Your task to perform on an android device: check the backup settings in the google photos Image 0: 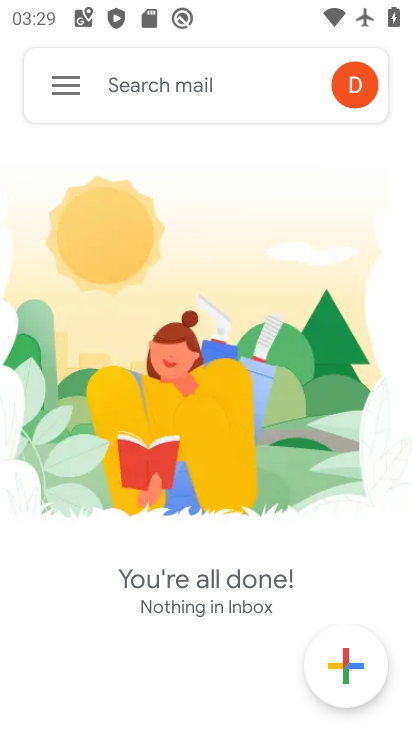
Step 0: press home button
Your task to perform on an android device: check the backup settings in the google photos Image 1: 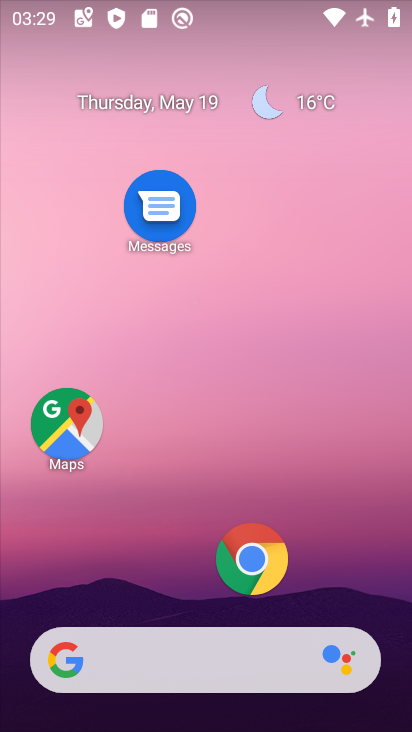
Step 1: drag from (193, 585) to (252, 274)
Your task to perform on an android device: check the backup settings in the google photos Image 2: 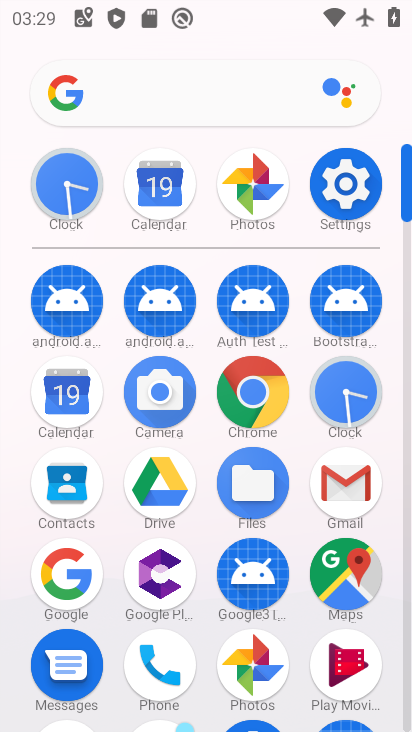
Step 2: click (257, 188)
Your task to perform on an android device: check the backup settings in the google photos Image 3: 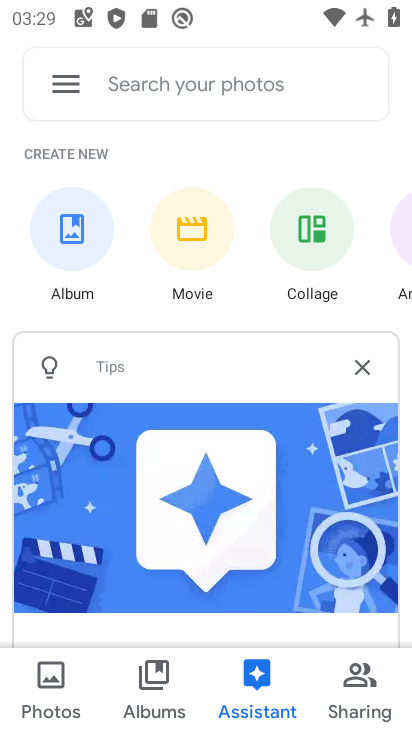
Step 3: click (76, 88)
Your task to perform on an android device: check the backup settings in the google photos Image 4: 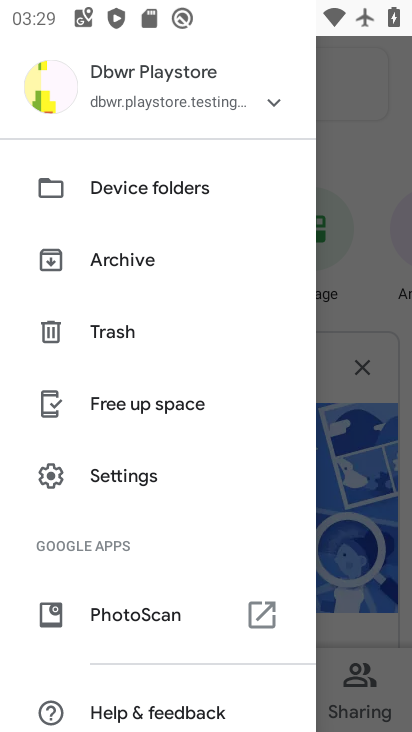
Step 4: click (165, 482)
Your task to perform on an android device: check the backup settings in the google photos Image 5: 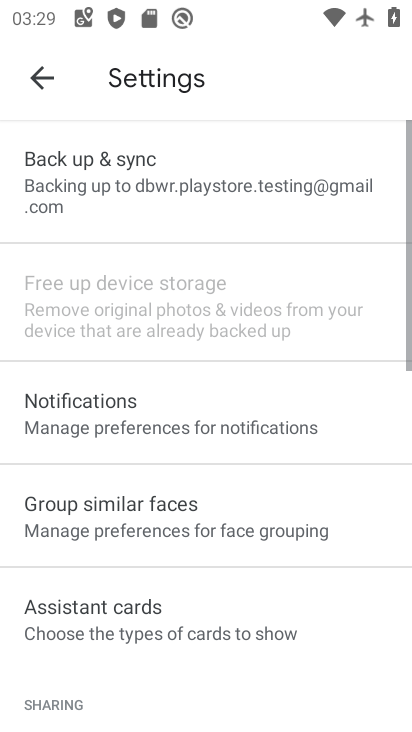
Step 5: click (141, 193)
Your task to perform on an android device: check the backup settings in the google photos Image 6: 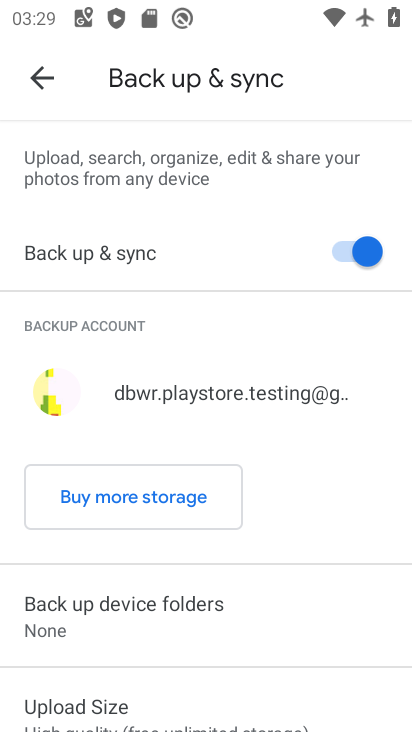
Step 6: task complete